Your task to perform on an android device: Go to CNN.com Image 0: 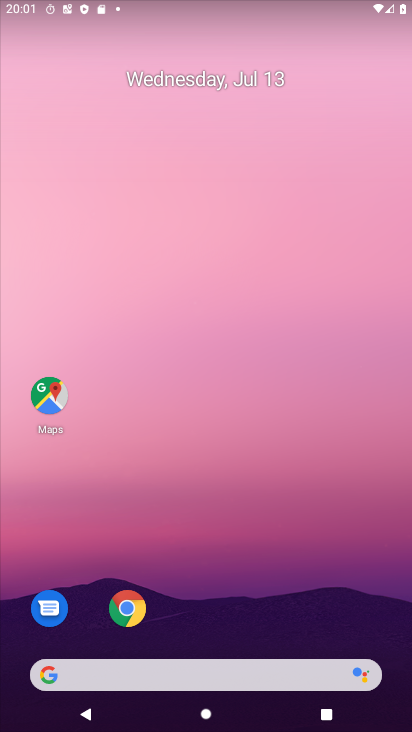
Step 0: click (140, 609)
Your task to perform on an android device: Go to CNN.com Image 1: 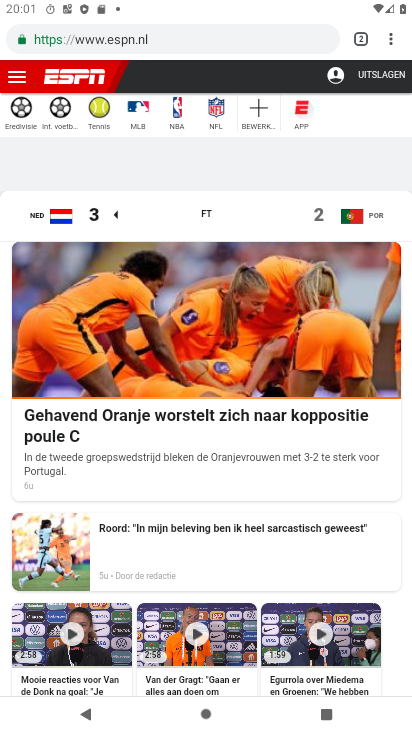
Step 1: click (358, 29)
Your task to perform on an android device: Go to CNN.com Image 2: 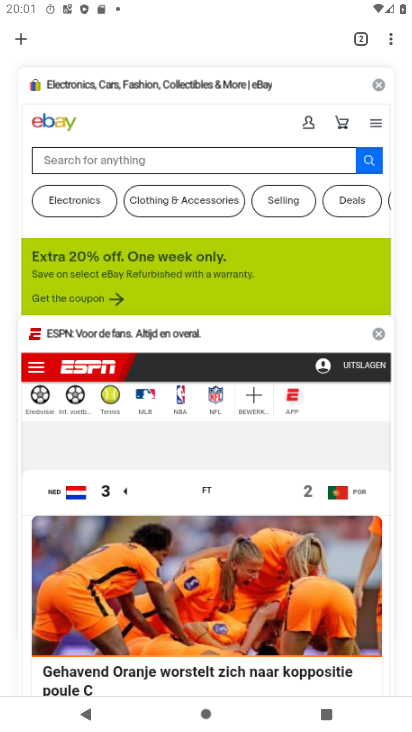
Step 2: click (13, 41)
Your task to perform on an android device: Go to CNN.com Image 3: 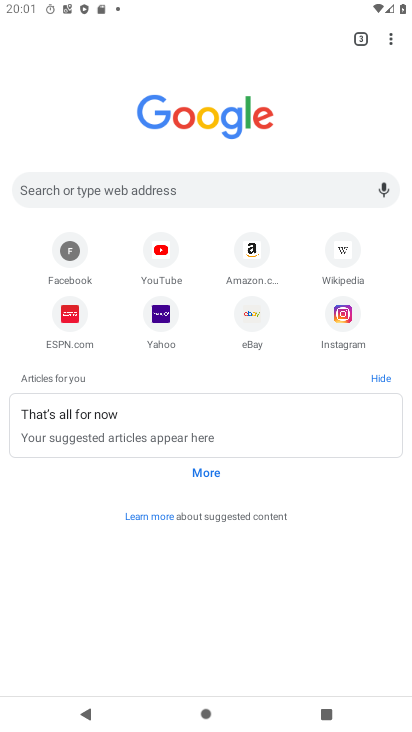
Step 3: click (143, 189)
Your task to perform on an android device: Go to CNN.com Image 4: 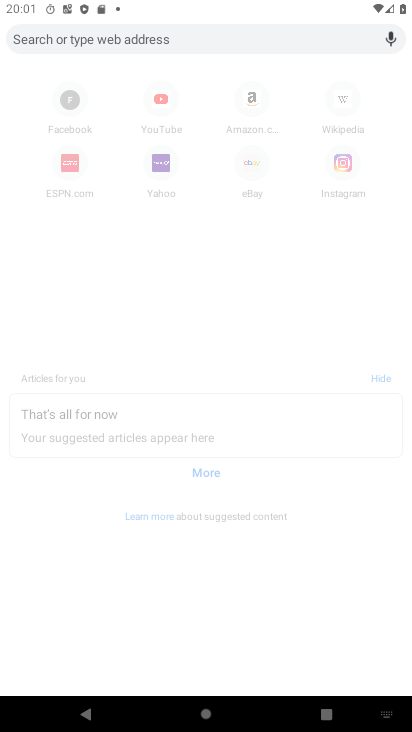
Step 4: type "CNN.com"
Your task to perform on an android device: Go to CNN.com Image 5: 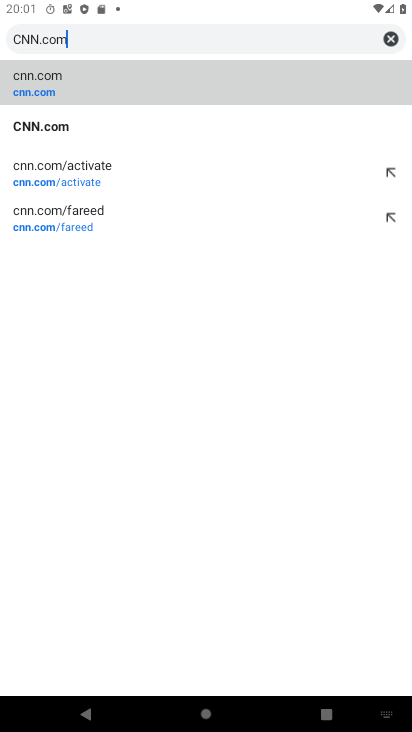
Step 5: type ""
Your task to perform on an android device: Go to CNN.com Image 6: 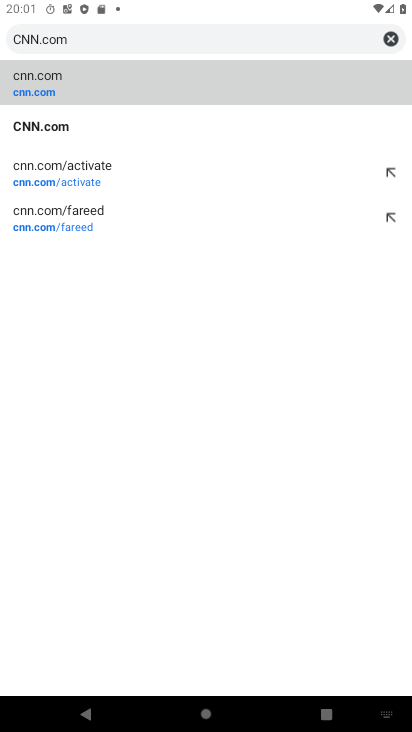
Step 6: click (181, 85)
Your task to perform on an android device: Go to CNN.com Image 7: 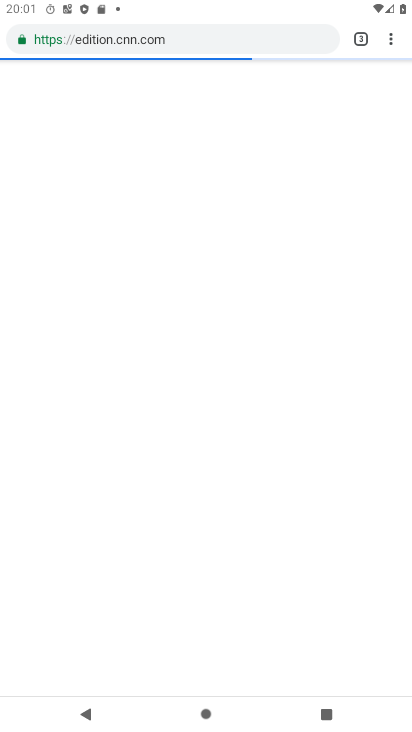
Step 7: task complete